Your task to perform on an android device: Search for the best Mexican restaurants Image 0: 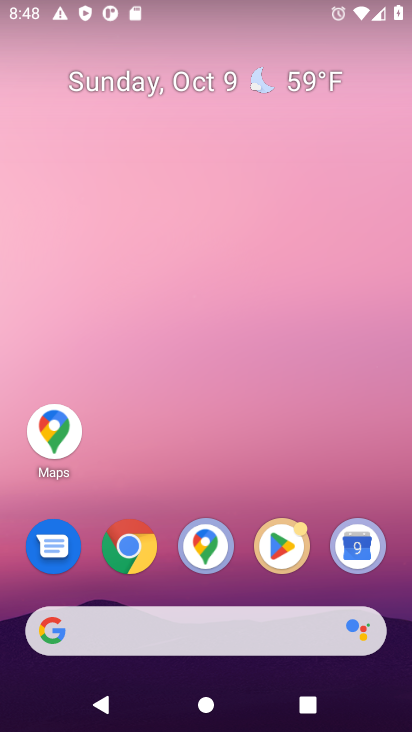
Step 0: click (140, 547)
Your task to perform on an android device: Search for the best Mexican restaurants Image 1: 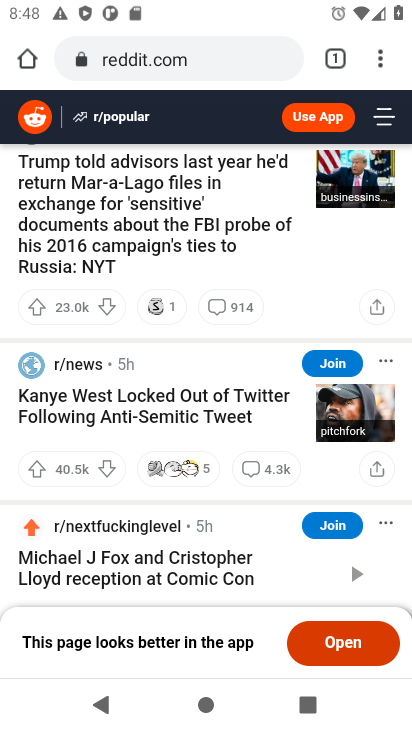
Step 1: click (173, 55)
Your task to perform on an android device: Search for the best Mexican restaurants Image 2: 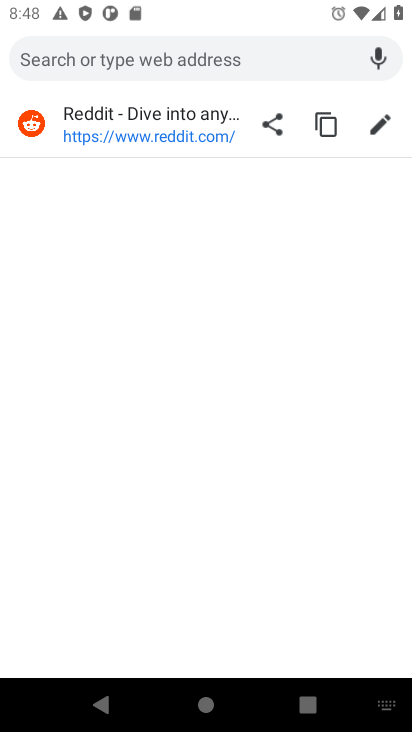
Step 2: type "best mexican restaurants"
Your task to perform on an android device: Search for the best Mexican restaurants Image 3: 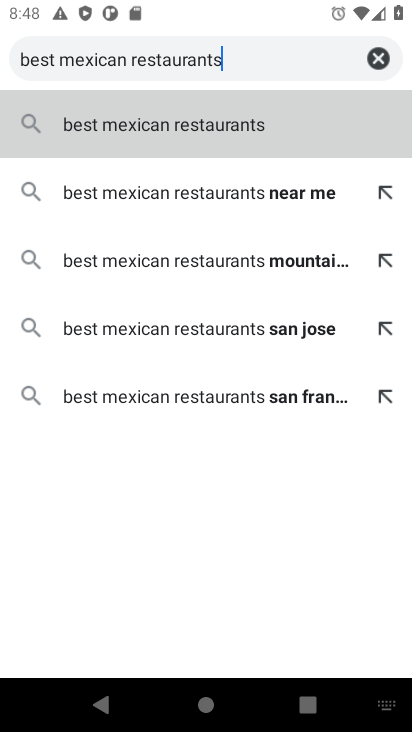
Step 3: press enter
Your task to perform on an android device: Search for the best Mexican restaurants Image 4: 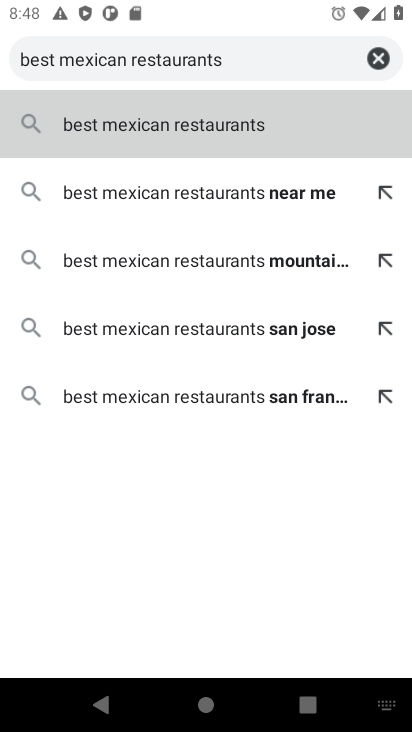
Step 4: type ""
Your task to perform on an android device: Search for the best Mexican restaurants Image 5: 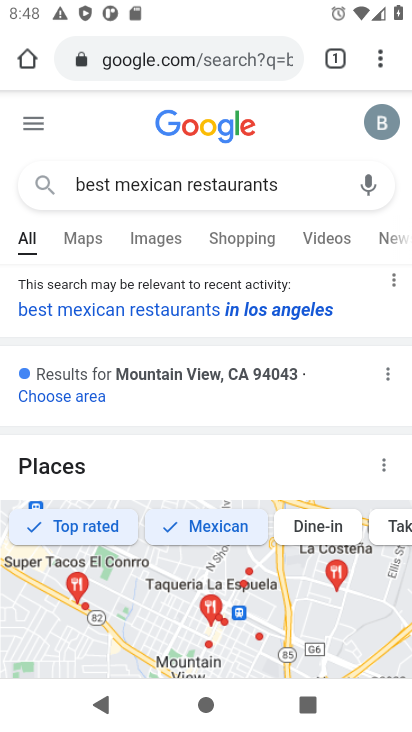
Step 5: drag from (197, 624) to (179, 275)
Your task to perform on an android device: Search for the best Mexican restaurants Image 6: 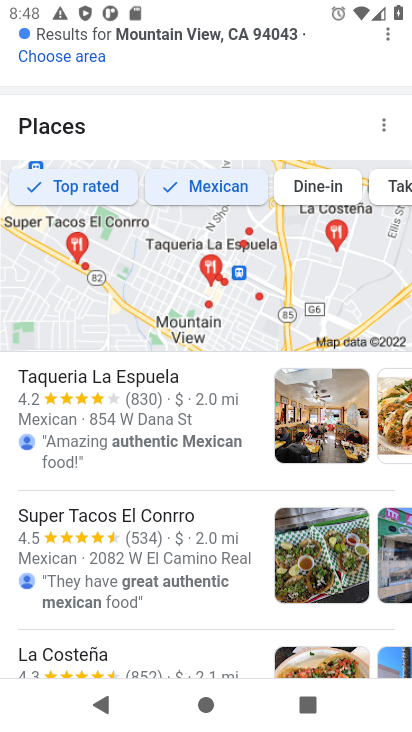
Step 6: drag from (184, 557) to (183, 319)
Your task to perform on an android device: Search for the best Mexican restaurants Image 7: 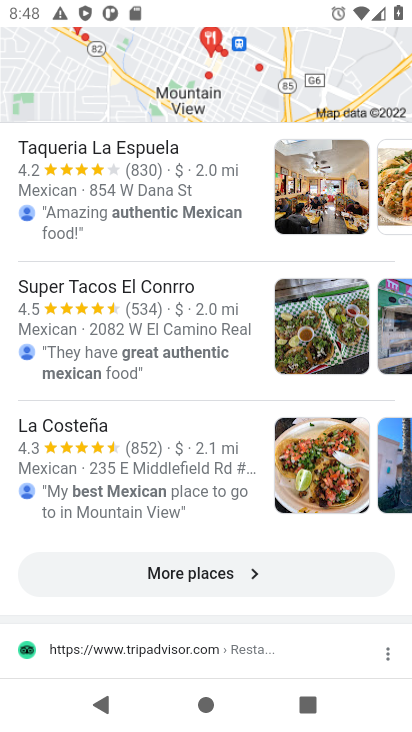
Step 7: click (207, 571)
Your task to perform on an android device: Search for the best Mexican restaurants Image 8: 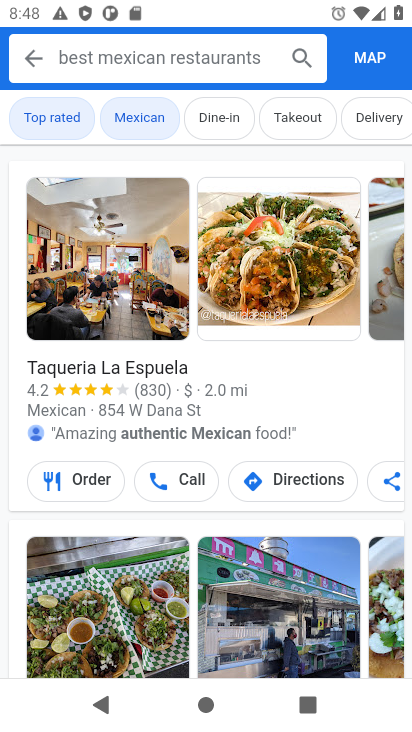
Step 8: task complete